Your task to perform on an android device: allow notifications from all sites in the chrome app Image 0: 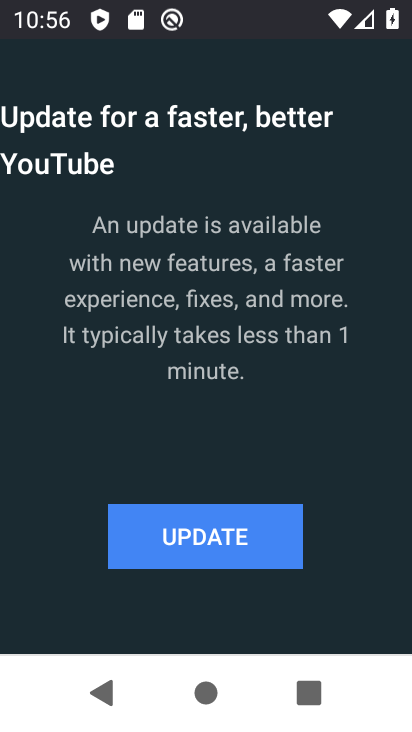
Step 0: press back button
Your task to perform on an android device: allow notifications from all sites in the chrome app Image 1: 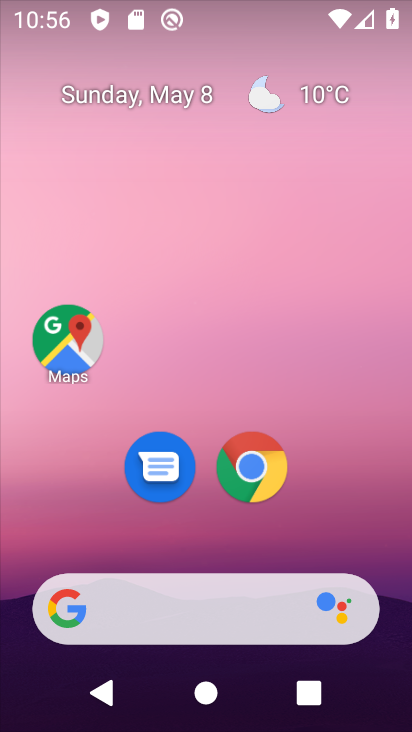
Step 1: click (280, 482)
Your task to perform on an android device: allow notifications from all sites in the chrome app Image 2: 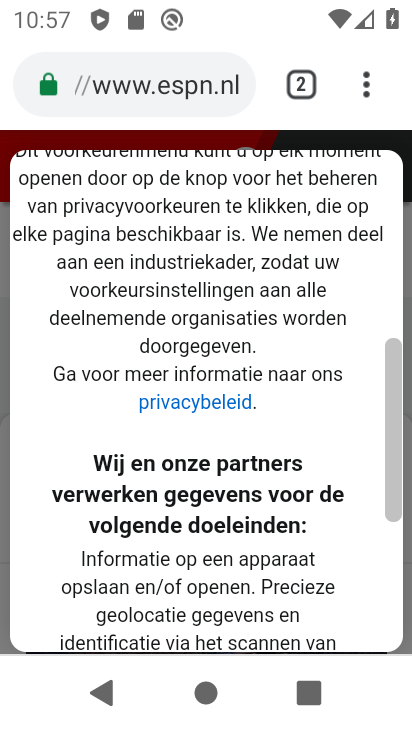
Step 2: drag from (370, 117) to (195, 532)
Your task to perform on an android device: allow notifications from all sites in the chrome app Image 3: 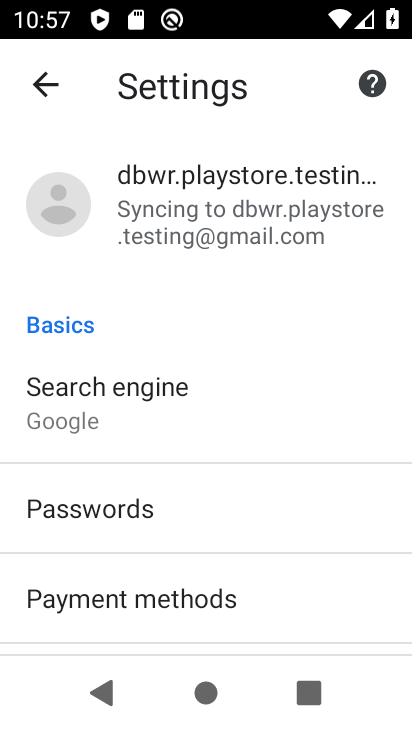
Step 3: drag from (237, 634) to (231, 94)
Your task to perform on an android device: allow notifications from all sites in the chrome app Image 4: 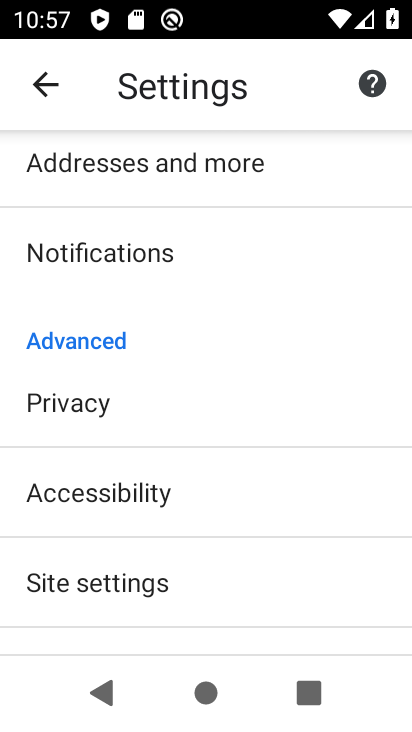
Step 4: click (249, 579)
Your task to perform on an android device: allow notifications from all sites in the chrome app Image 5: 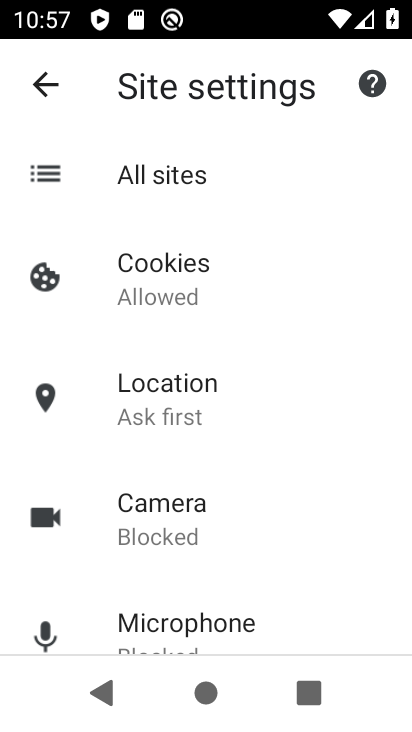
Step 5: drag from (310, 588) to (292, 273)
Your task to perform on an android device: allow notifications from all sites in the chrome app Image 6: 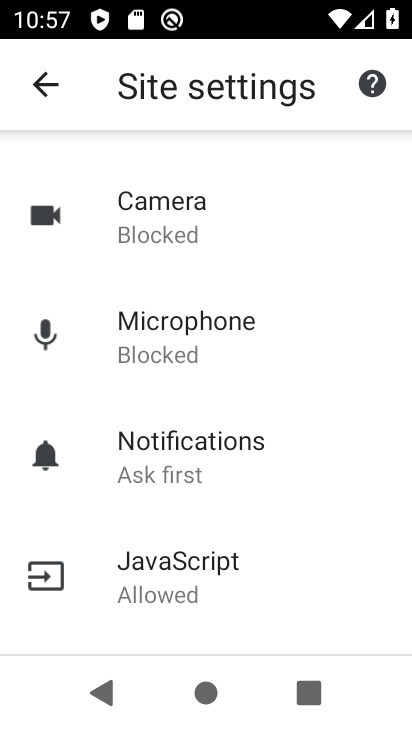
Step 6: click (268, 487)
Your task to perform on an android device: allow notifications from all sites in the chrome app Image 7: 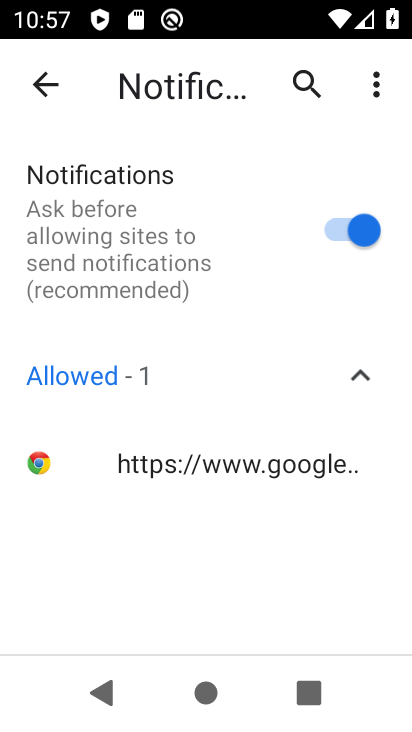
Step 7: task complete